Your task to perform on an android device: toggle priority inbox in the gmail app Image 0: 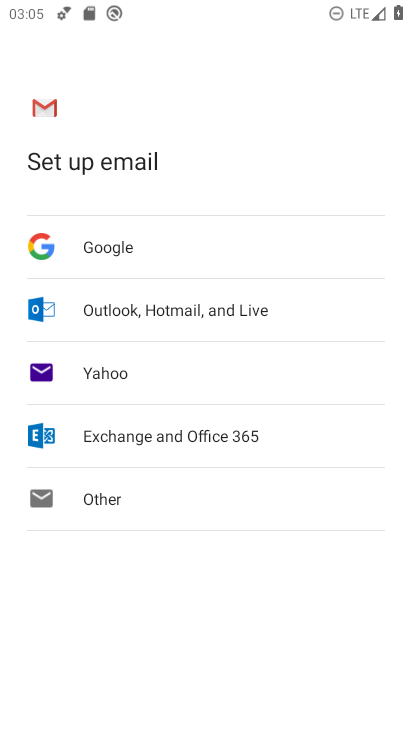
Step 0: press home button
Your task to perform on an android device: toggle priority inbox in the gmail app Image 1: 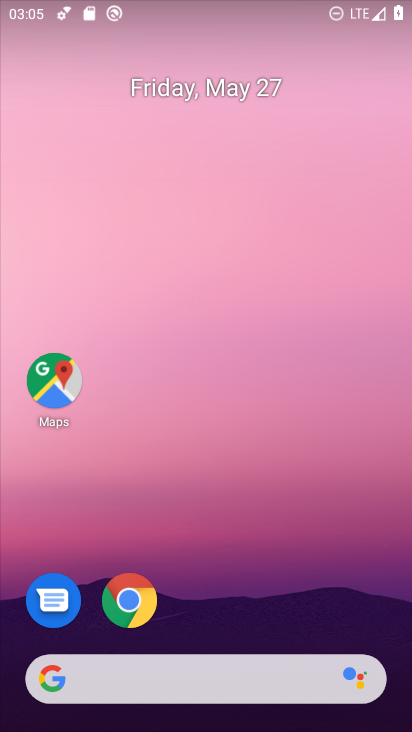
Step 1: drag from (197, 725) to (185, 218)
Your task to perform on an android device: toggle priority inbox in the gmail app Image 2: 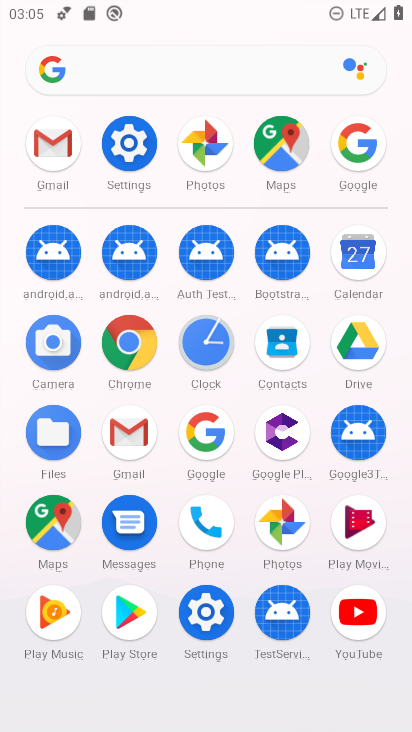
Step 2: click (131, 426)
Your task to perform on an android device: toggle priority inbox in the gmail app Image 3: 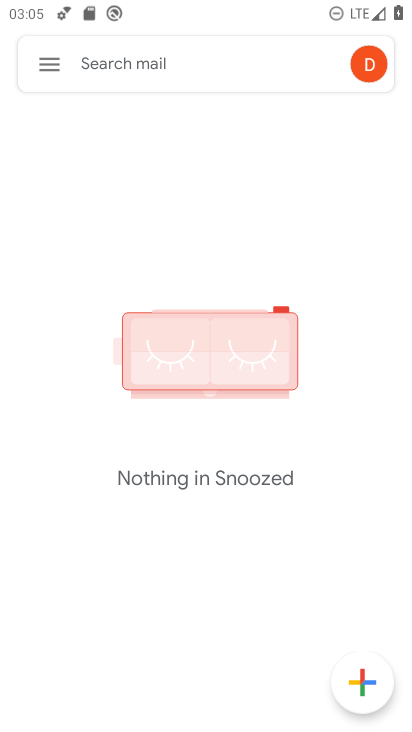
Step 3: click (42, 61)
Your task to perform on an android device: toggle priority inbox in the gmail app Image 4: 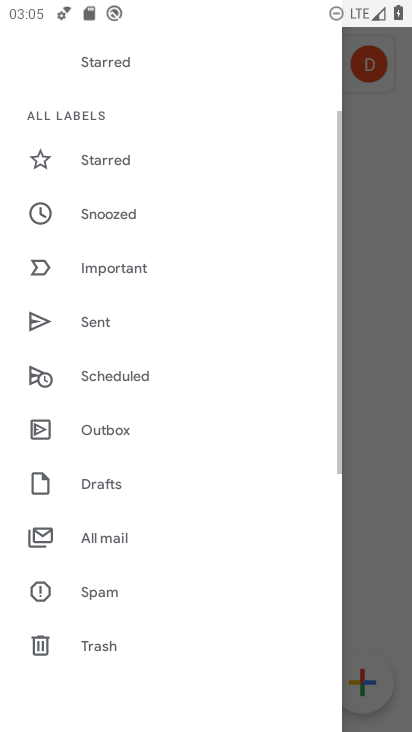
Step 4: drag from (117, 627) to (118, 249)
Your task to perform on an android device: toggle priority inbox in the gmail app Image 5: 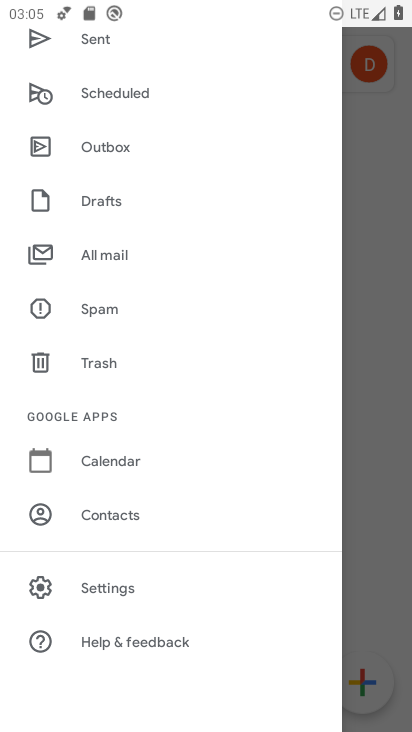
Step 5: click (106, 584)
Your task to perform on an android device: toggle priority inbox in the gmail app Image 6: 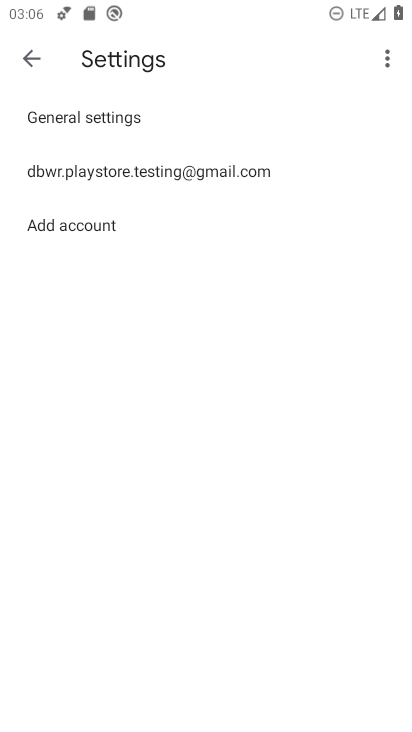
Step 6: click (185, 169)
Your task to perform on an android device: toggle priority inbox in the gmail app Image 7: 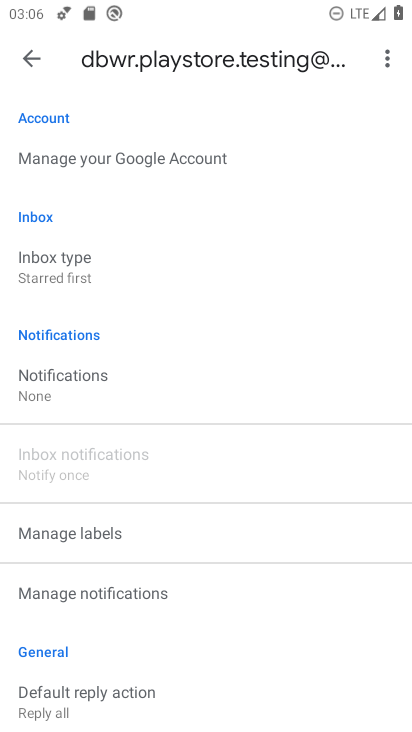
Step 7: click (71, 263)
Your task to perform on an android device: toggle priority inbox in the gmail app Image 8: 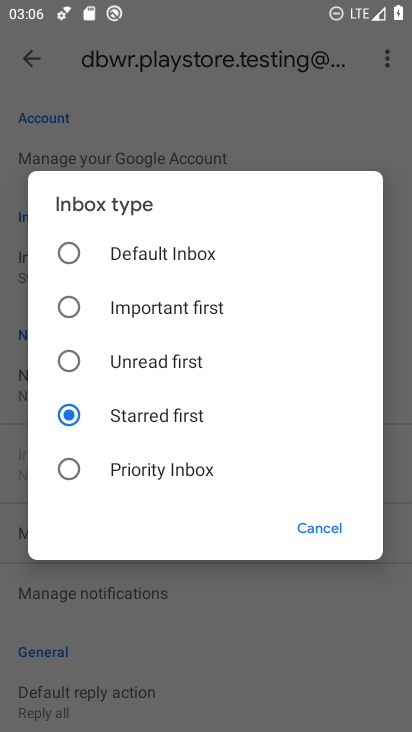
Step 8: click (74, 474)
Your task to perform on an android device: toggle priority inbox in the gmail app Image 9: 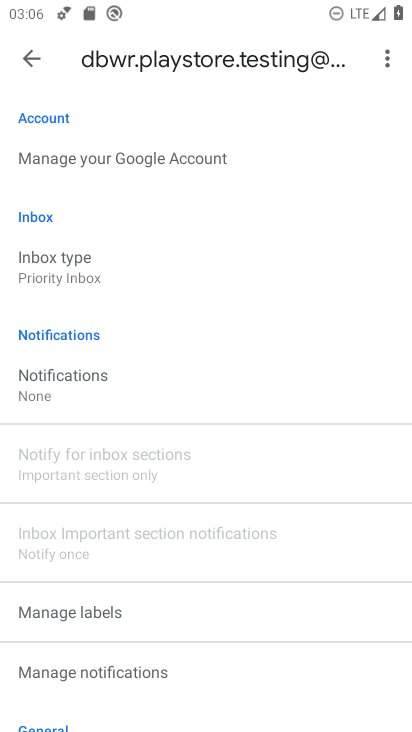
Step 9: task complete